Your task to perform on an android device: change text size in settings app Image 0: 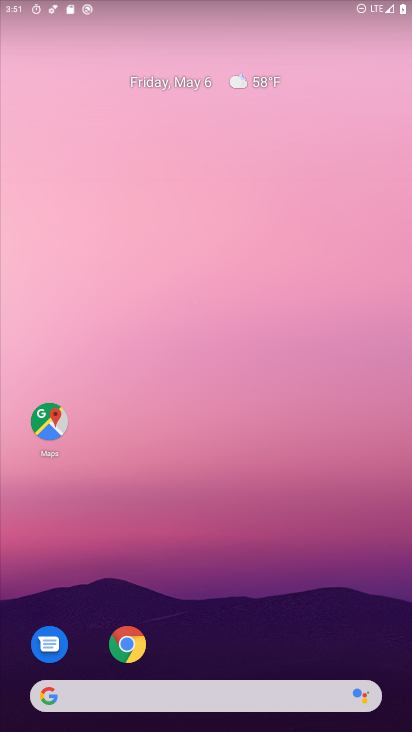
Step 0: drag from (205, 721) to (206, 117)
Your task to perform on an android device: change text size in settings app Image 1: 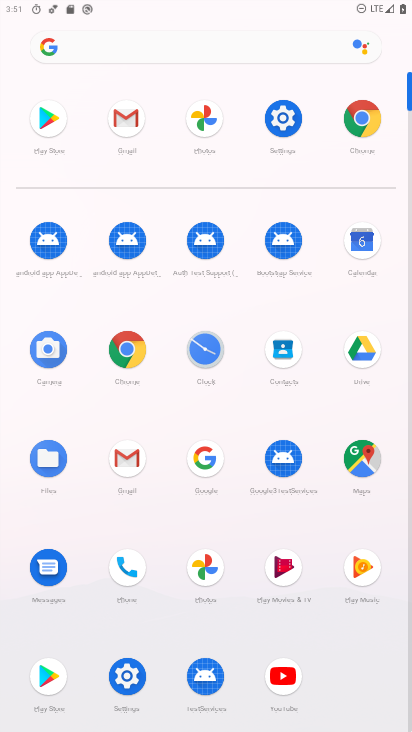
Step 1: click (285, 119)
Your task to perform on an android device: change text size in settings app Image 2: 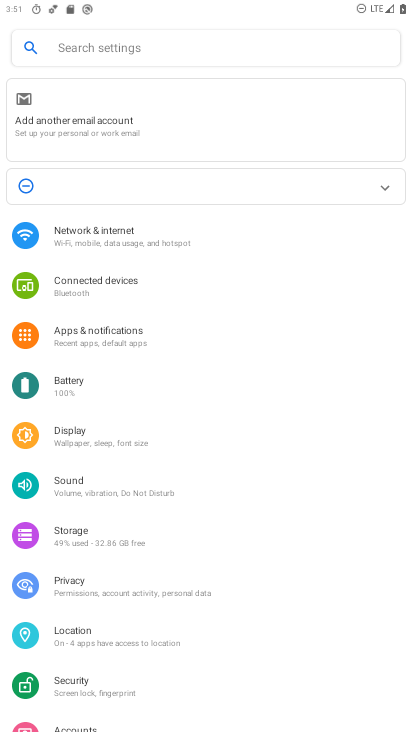
Step 2: click (103, 444)
Your task to perform on an android device: change text size in settings app Image 3: 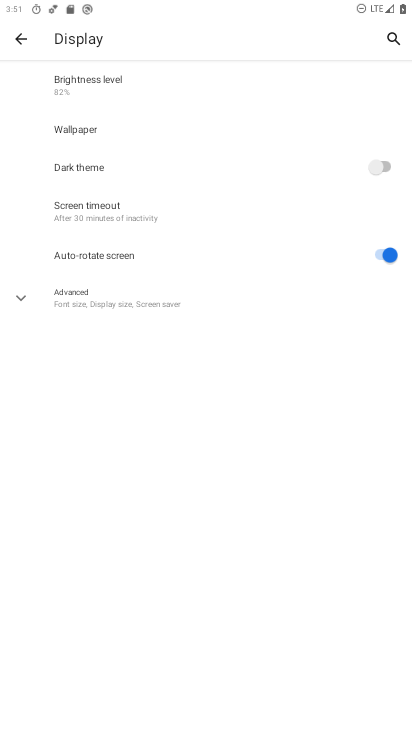
Step 3: click (145, 303)
Your task to perform on an android device: change text size in settings app Image 4: 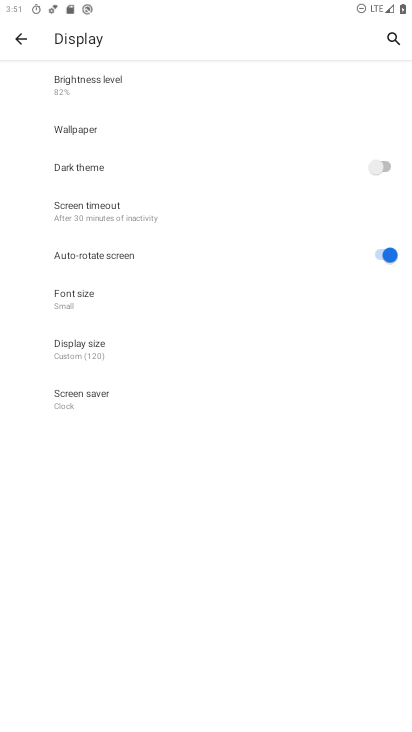
Step 4: click (85, 293)
Your task to perform on an android device: change text size in settings app Image 5: 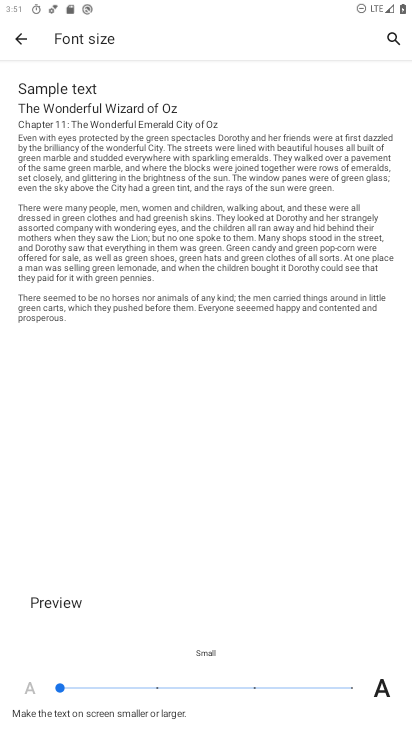
Step 5: click (158, 687)
Your task to perform on an android device: change text size in settings app Image 6: 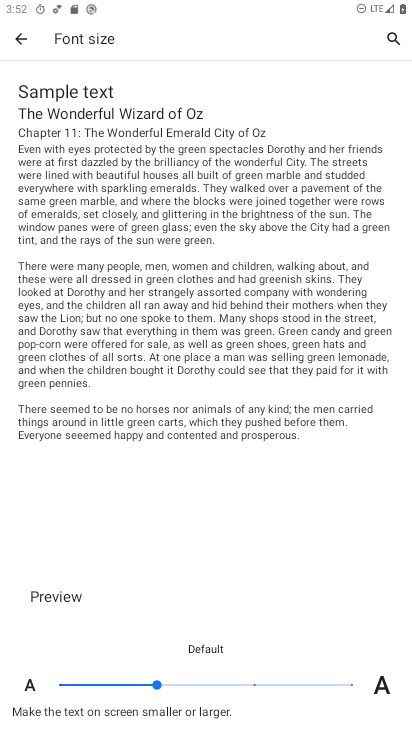
Step 6: task complete